Your task to perform on an android device: Go to CNN.com Image 0: 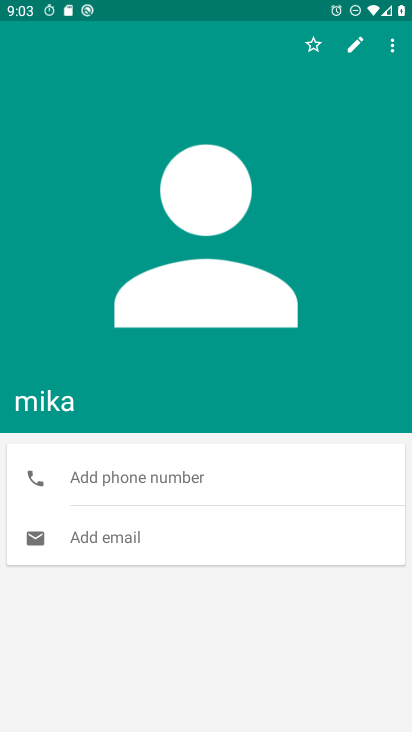
Step 0: press home button
Your task to perform on an android device: Go to CNN.com Image 1: 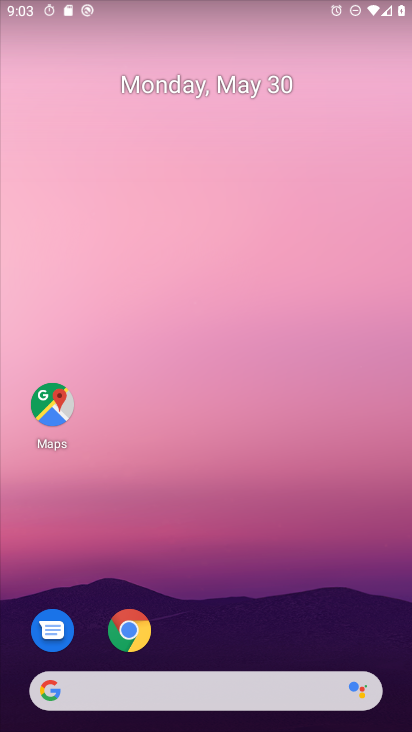
Step 1: drag from (338, 619) to (291, 75)
Your task to perform on an android device: Go to CNN.com Image 2: 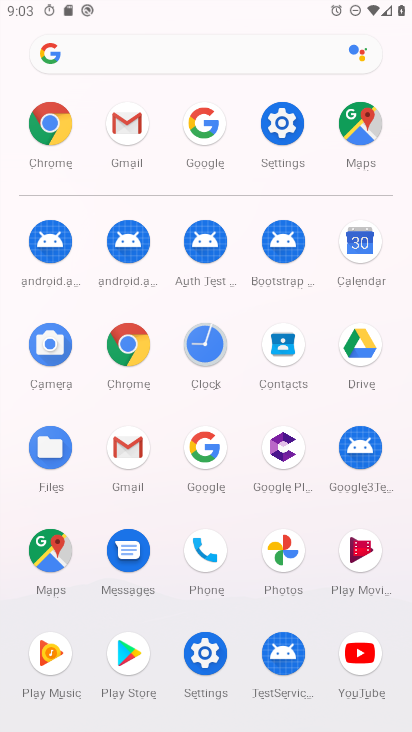
Step 2: click (198, 442)
Your task to perform on an android device: Go to CNN.com Image 3: 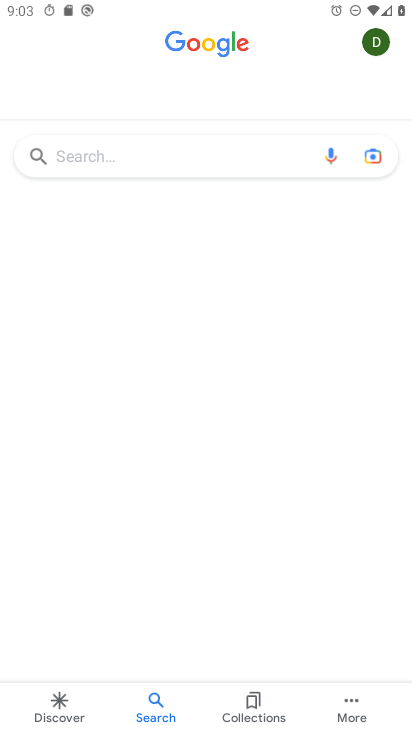
Step 3: click (117, 145)
Your task to perform on an android device: Go to CNN.com Image 4: 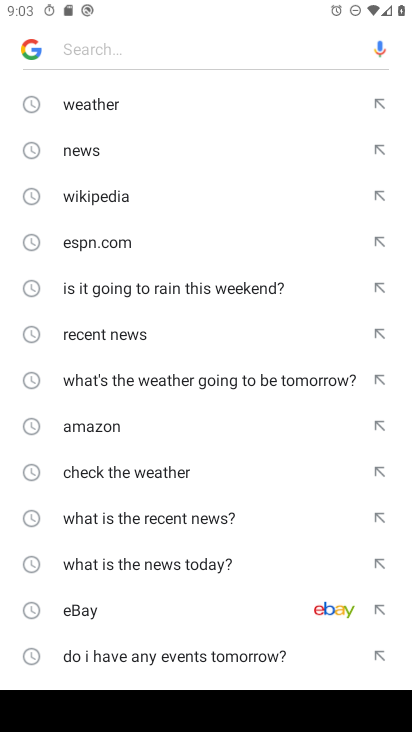
Step 4: drag from (90, 639) to (133, 222)
Your task to perform on an android device: Go to CNN.com Image 5: 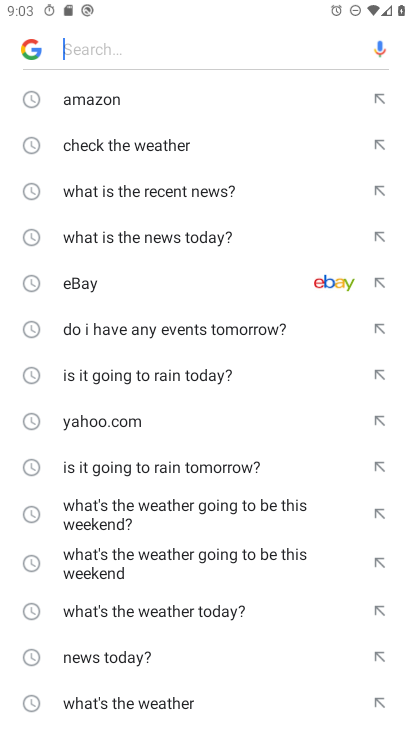
Step 5: drag from (122, 633) to (132, 221)
Your task to perform on an android device: Go to CNN.com Image 6: 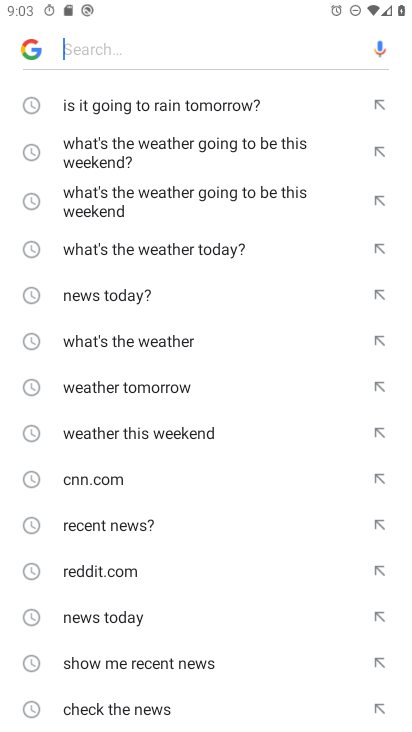
Step 6: click (109, 484)
Your task to perform on an android device: Go to CNN.com Image 7: 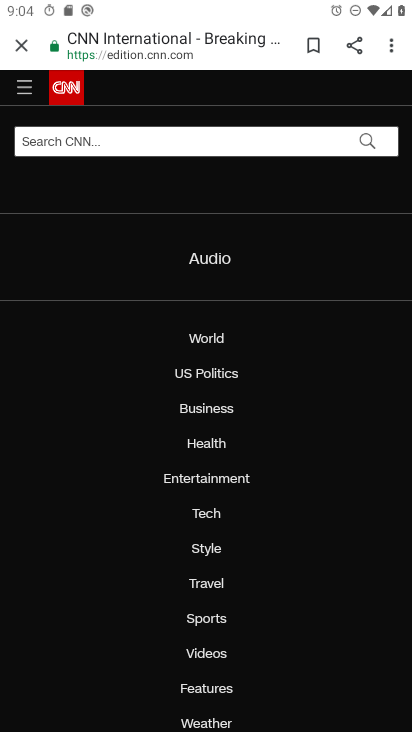
Step 7: task complete